Your task to perform on an android device: check the backup settings in the google photos Image 0: 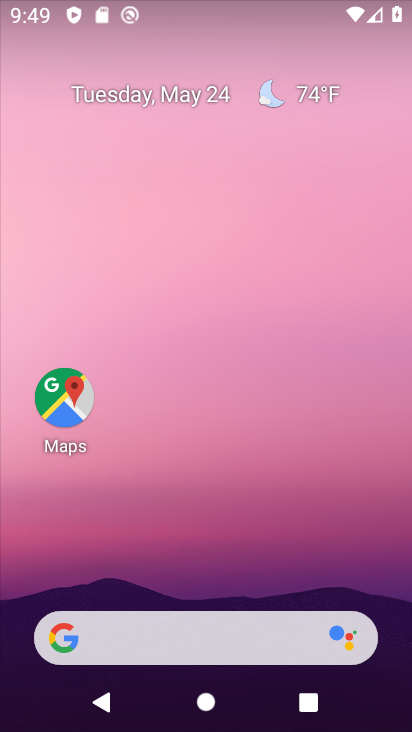
Step 0: drag from (229, 602) to (179, 63)
Your task to perform on an android device: check the backup settings in the google photos Image 1: 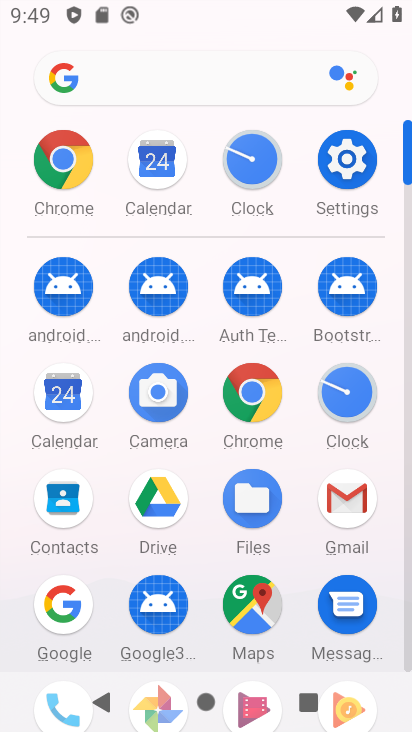
Step 1: click (146, 689)
Your task to perform on an android device: check the backup settings in the google photos Image 2: 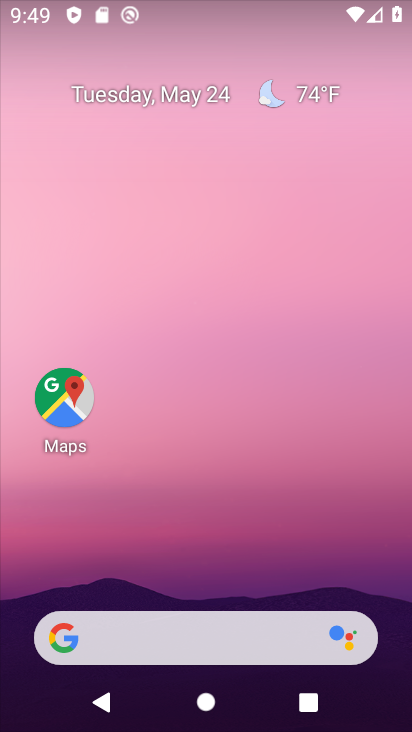
Step 2: drag from (208, 596) to (187, 54)
Your task to perform on an android device: check the backup settings in the google photos Image 3: 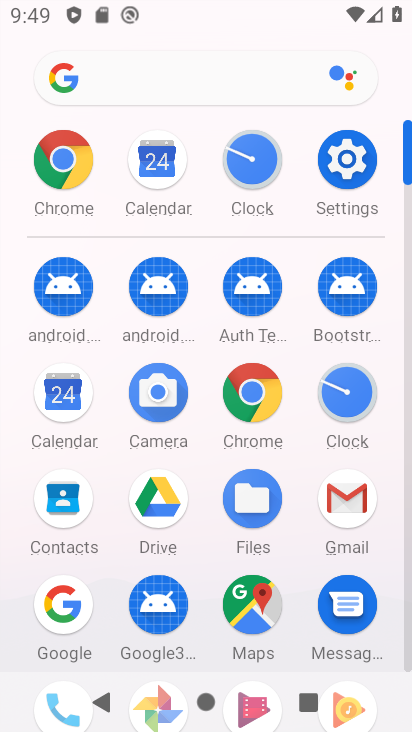
Step 3: drag from (217, 468) to (199, 84)
Your task to perform on an android device: check the backup settings in the google photos Image 4: 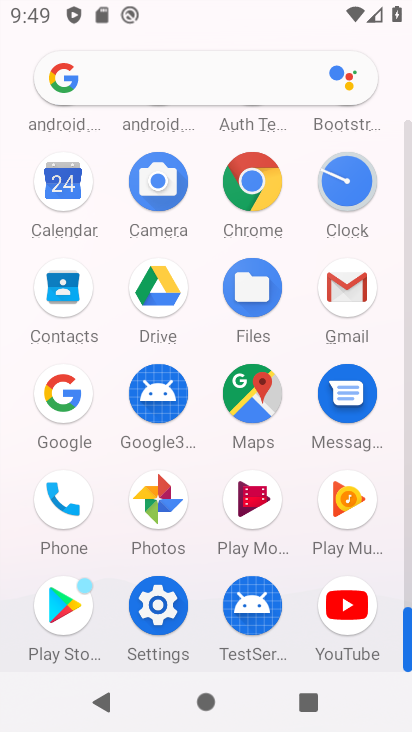
Step 4: click (164, 511)
Your task to perform on an android device: check the backup settings in the google photos Image 5: 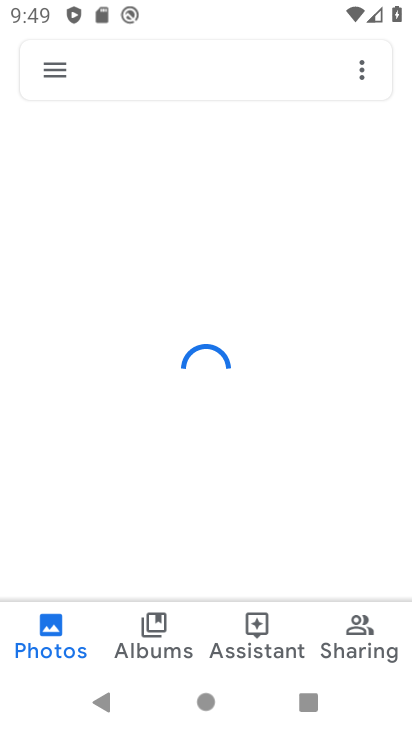
Step 5: click (43, 76)
Your task to perform on an android device: check the backup settings in the google photos Image 6: 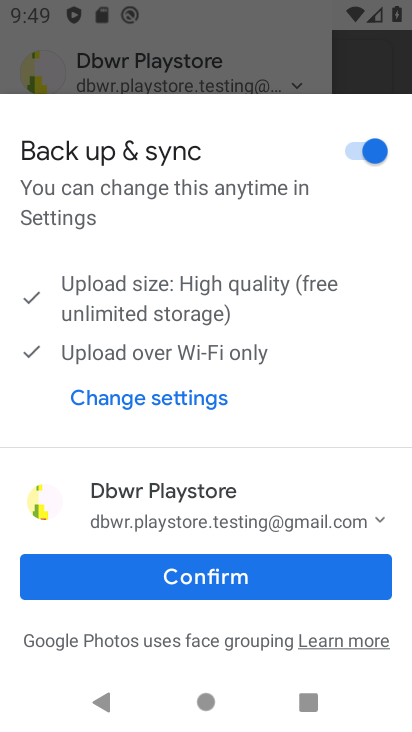
Step 6: click (192, 592)
Your task to perform on an android device: check the backup settings in the google photos Image 7: 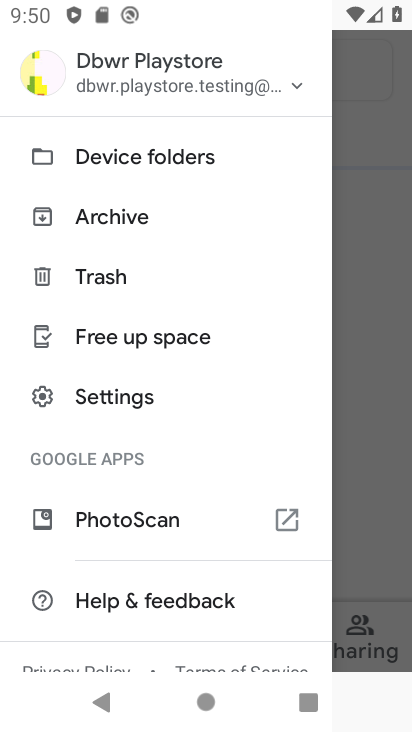
Step 7: click (78, 379)
Your task to perform on an android device: check the backup settings in the google photos Image 8: 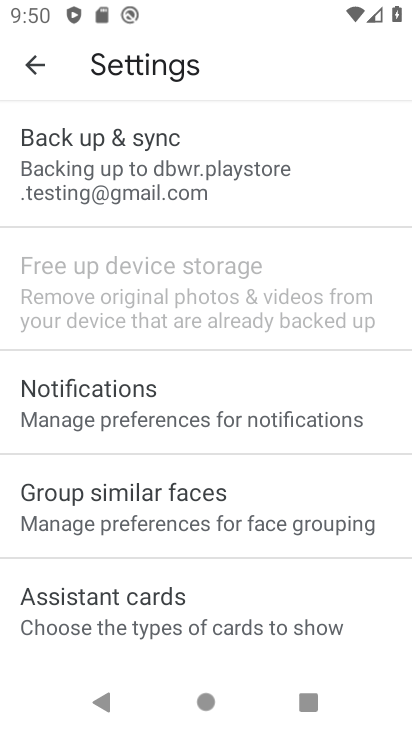
Step 8: click (113, 172)
Your task to perform on an android device: check the backup settings in the google photos Image 9: 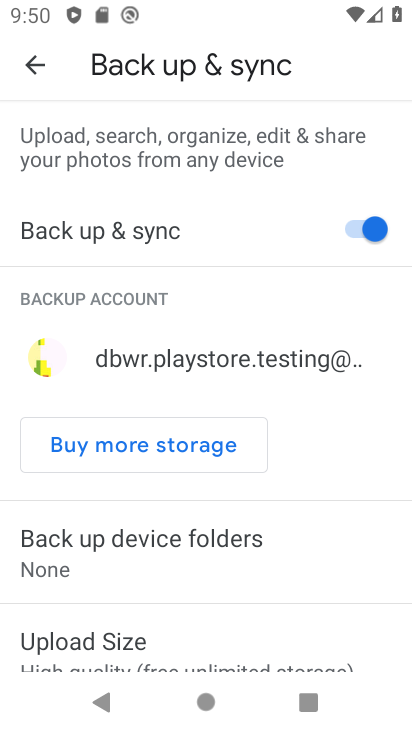
Step 9: task complete